Your task to perform on an android device: Set the phone to "Do not disturb". Image 0: 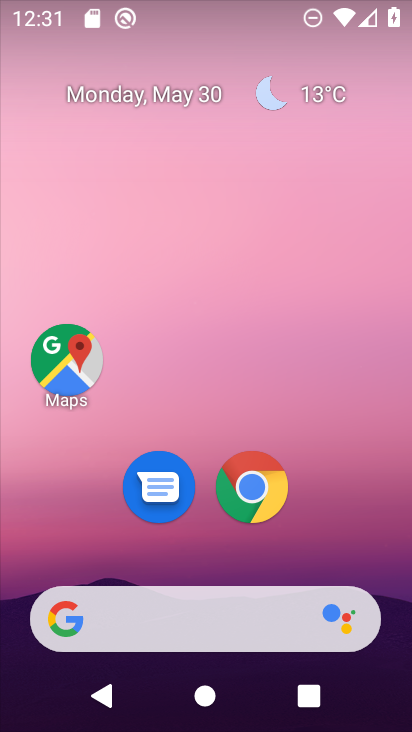
Step 0: drag from (400, 663) to (366, 166)
Your task to perform on an android device: Set the phone to "Do not disturb". Image 1: 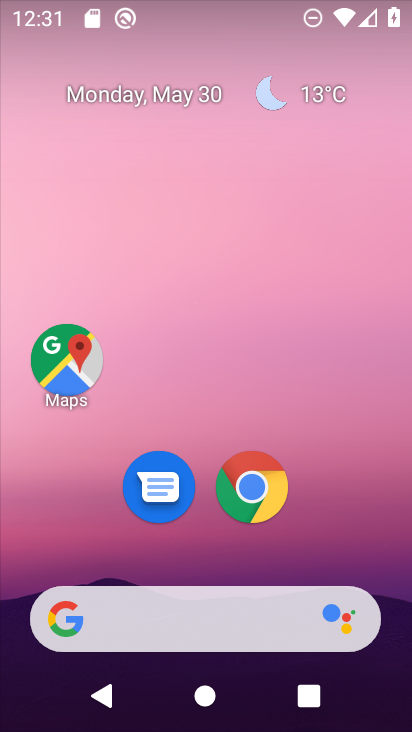
Step 1: drag from (392, 702) to (386, 131)
Your task to perform on an android device: Set the phone to "Do not disturb". Image 2: 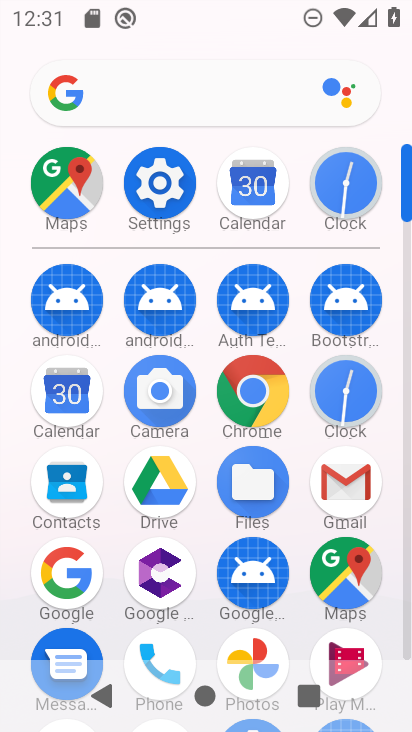
Step 2: click (153, 181)
Your task to perform on an android device: Set the phone to "Do not disturb". Image 3: 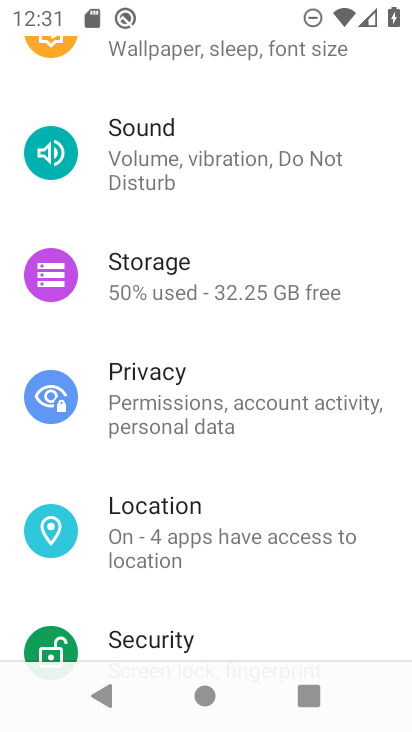
Step 3: click (150, 158)
Your task to perform on an android device: Set the phone to "Do not disturb". Image 4: 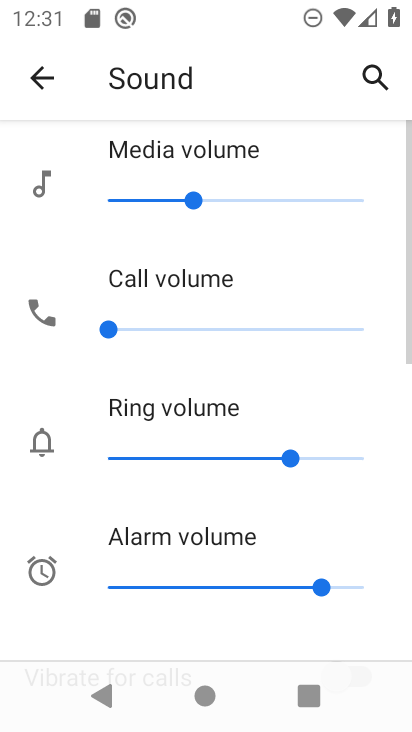
Step 4: task complete